Your task to perform on an android device: turn off translation in the chrome app Image 0: 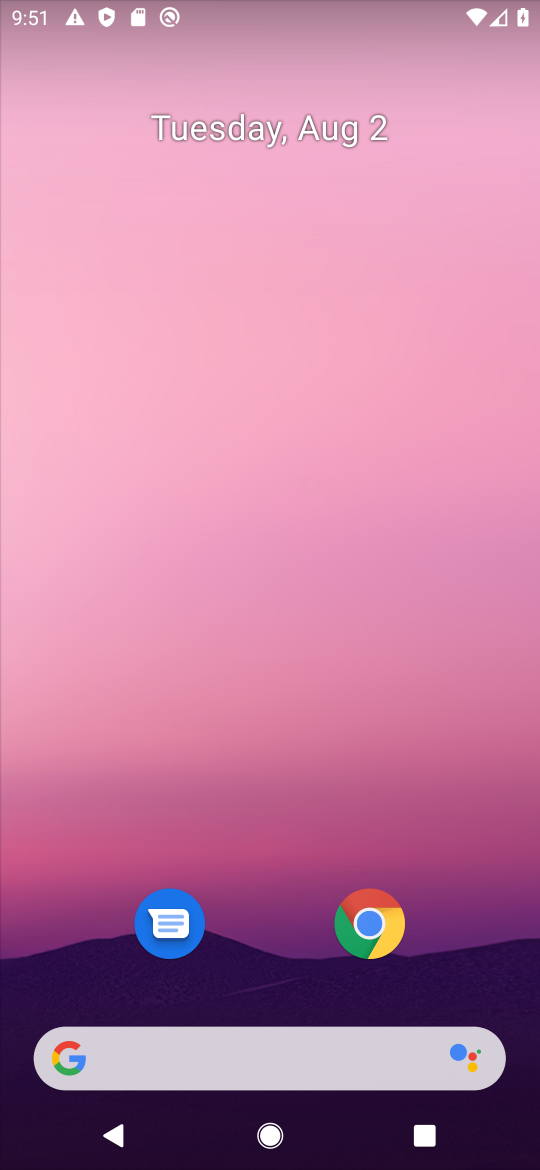
Step 0: press home button
Your task to perform on an android device: turn off translation in the chrome app Image 1: 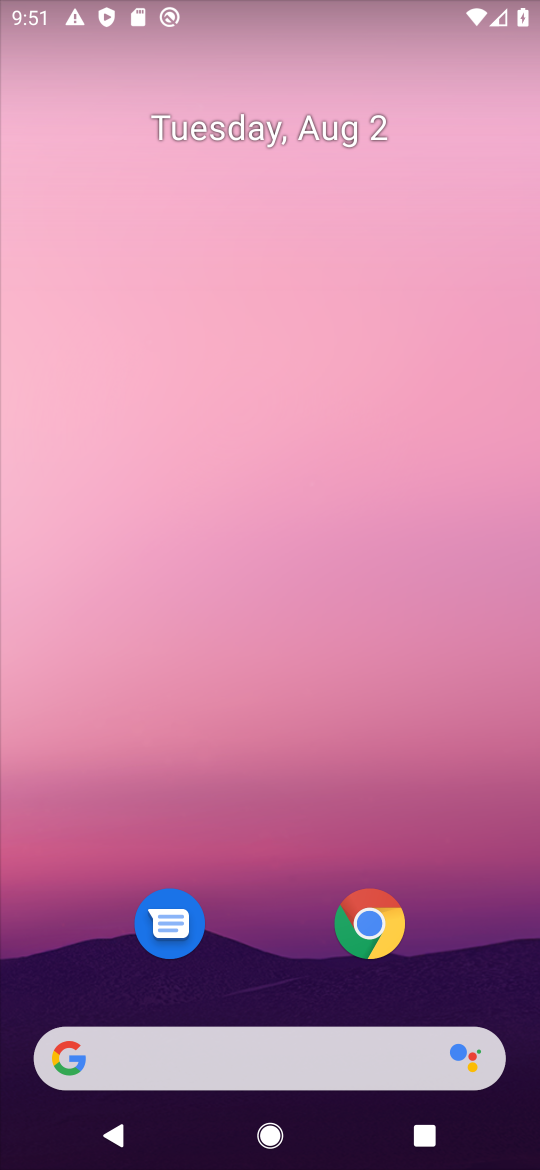
Step 1: click (365, 912)
Your task to perform on an android device: turn off translation in the chrome app Image 2: 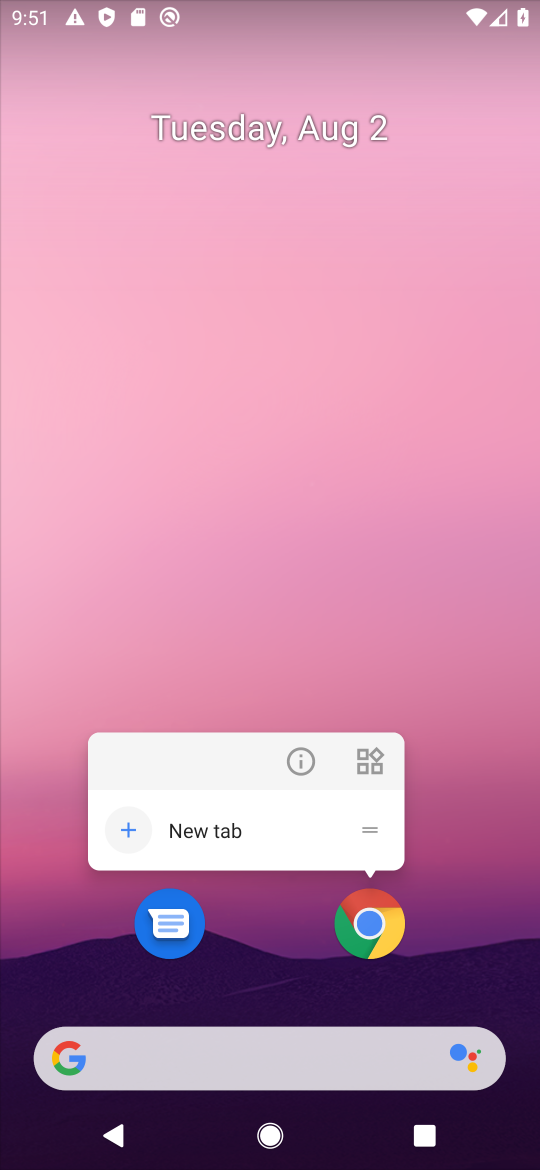
Step 2: click (368, 919)
Your task to perform on an android device: turn off translation in the chrome app Image 3: 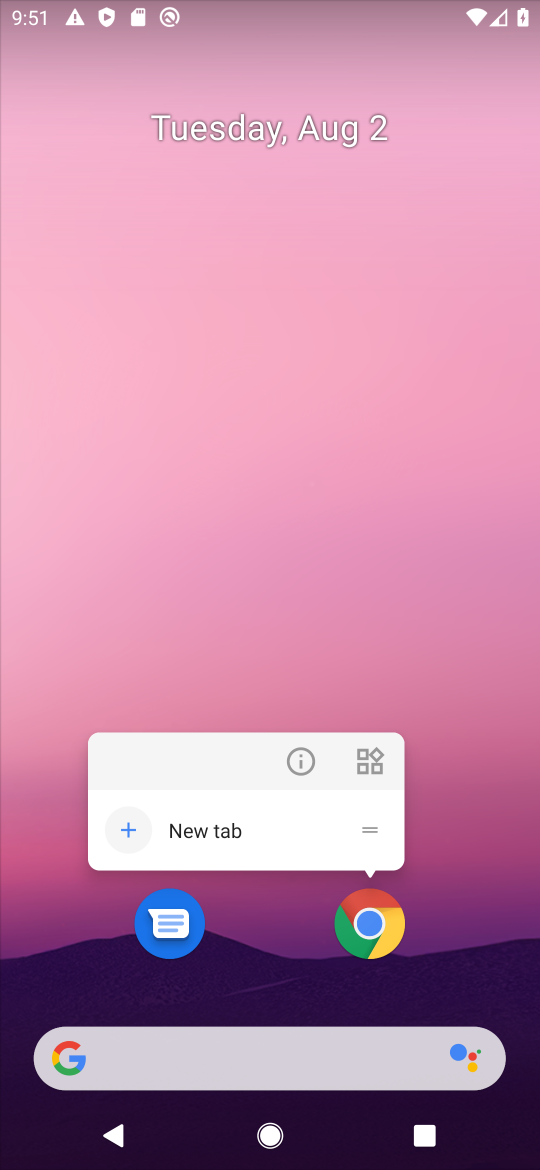
Step 3: click (362, 944)
Your task to perform on an android device: turn off translation in the chrome app Image 4: 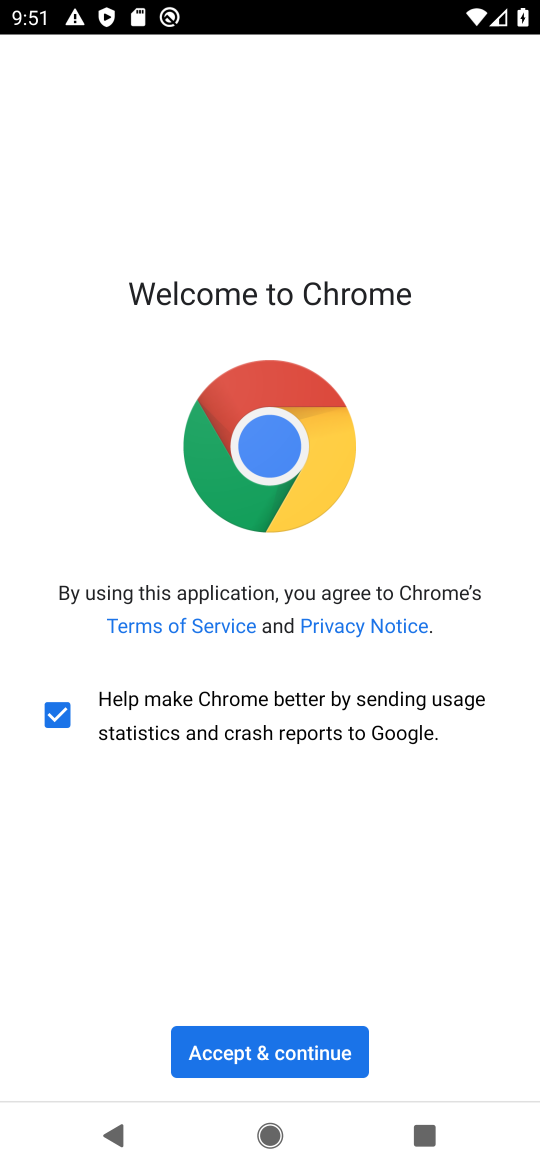
Step 4: click (307, 1058)
Your task to perform on an android device: turn off translation in the chrome app Image 5: 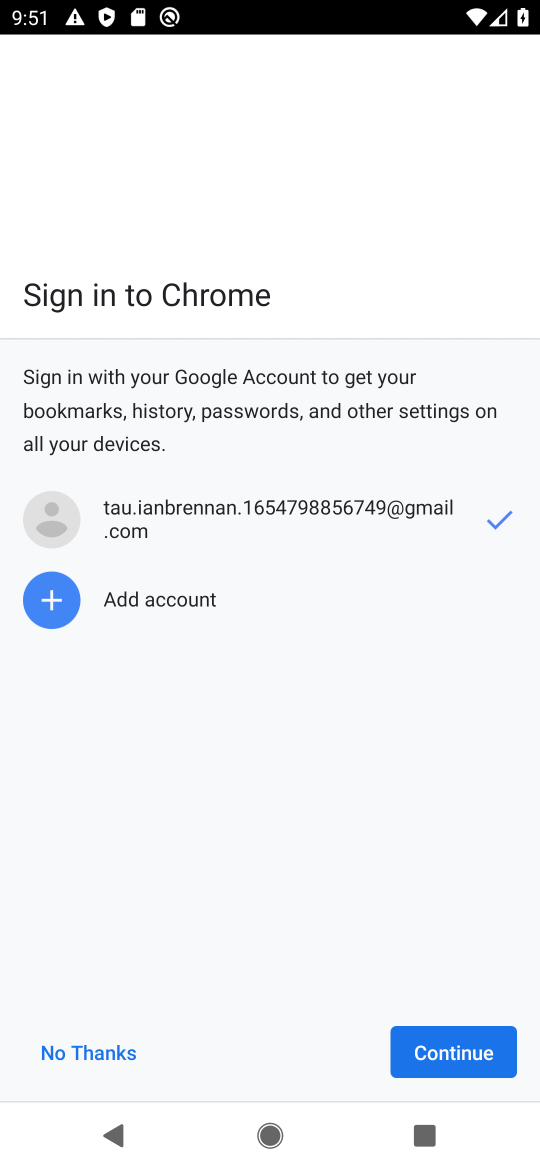
Step 5: click (445, 1059)
Your task to perform on an android device: turn off translation in the chrome app Image 6: 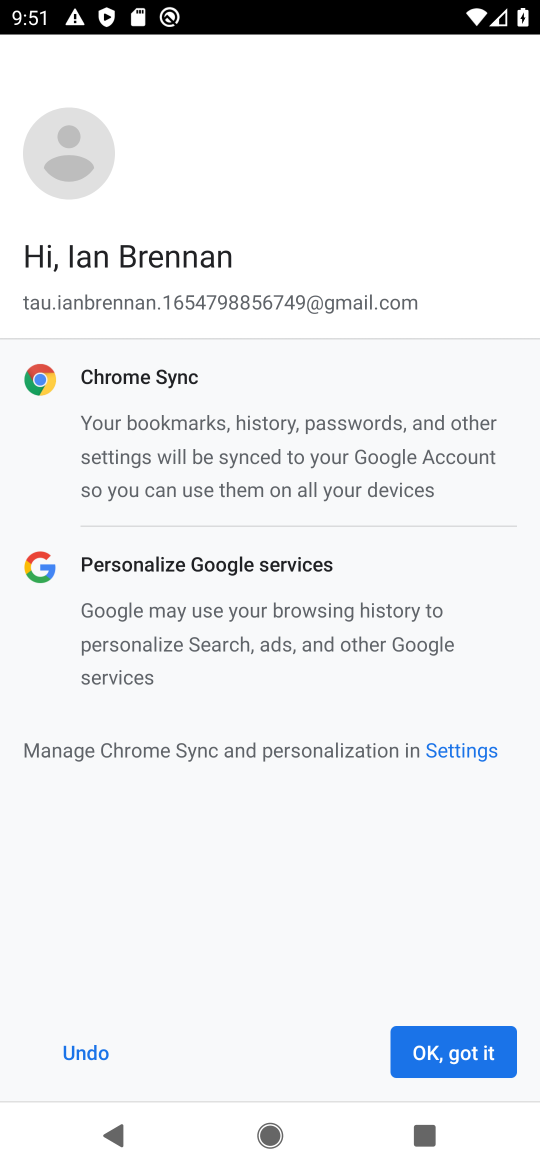
Step 6: click (459, 1056)
Your task to perform on an android device: turn off translation in the chrome app Image 7: 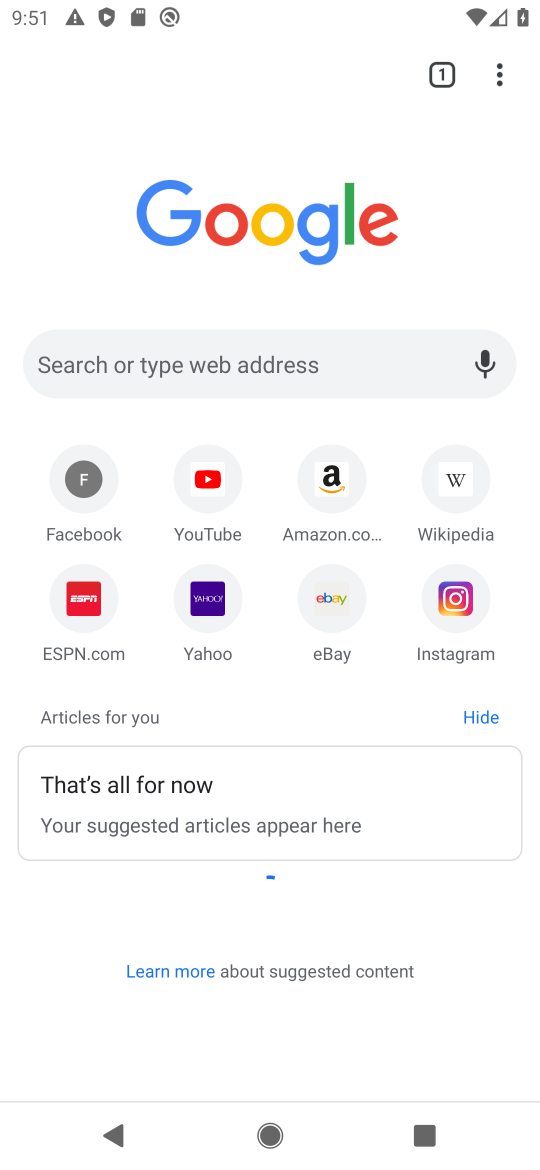
Step 7: click (499, 74)
Your task to perform on an android device: turn off translation in the chrome app Image 8: 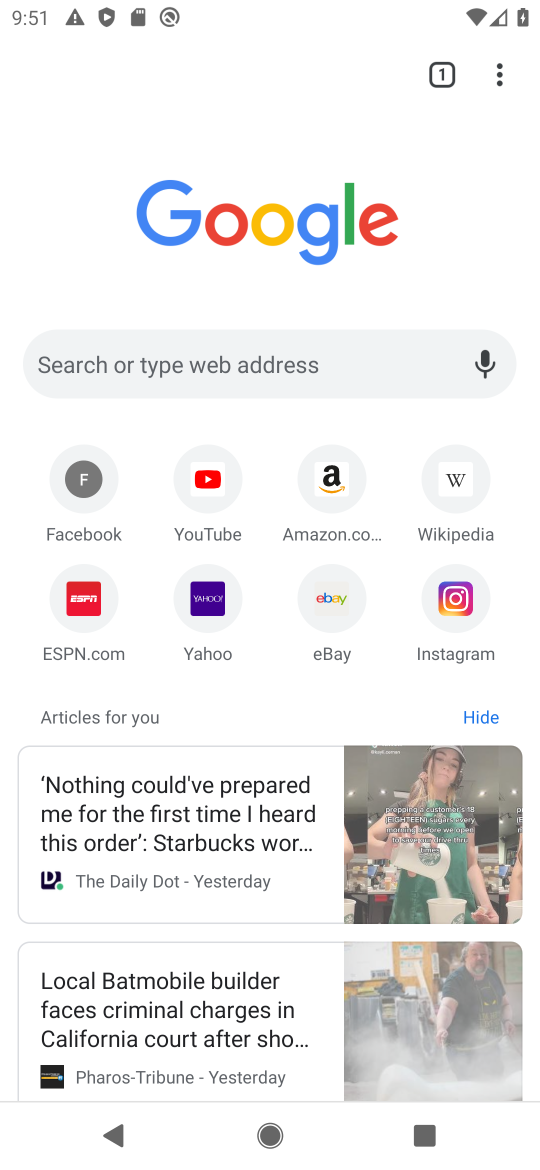
Step 8: drag from (501, 66) to (212, 632)
Your task to perform on an android device: turn off translation in the chrome app Image 9: 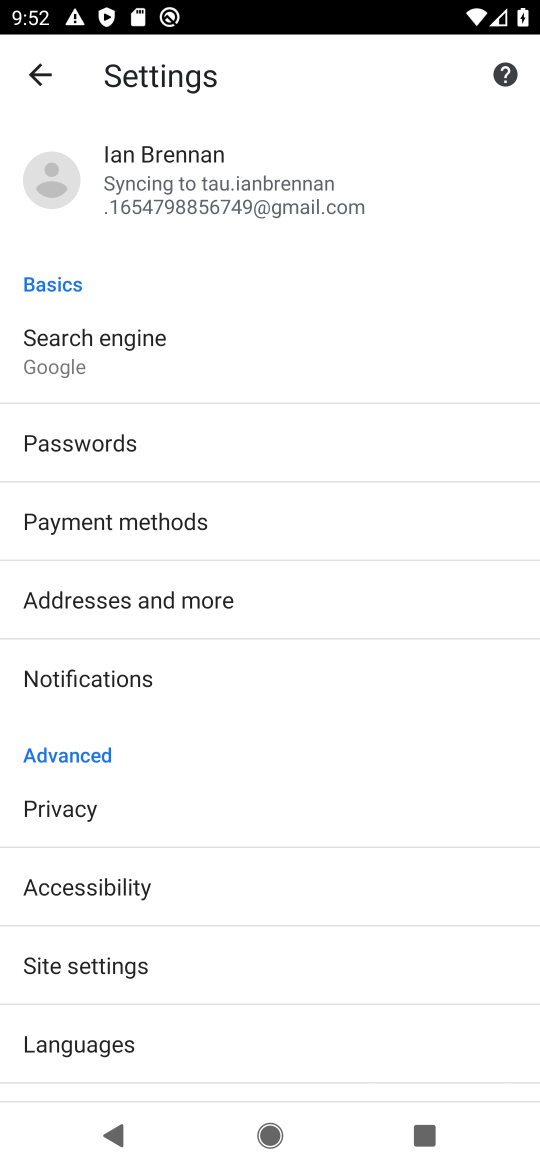
Step 9: click (89, 1039)
Your task to perform on an android device: turn off translation in the chrome app Image 10: 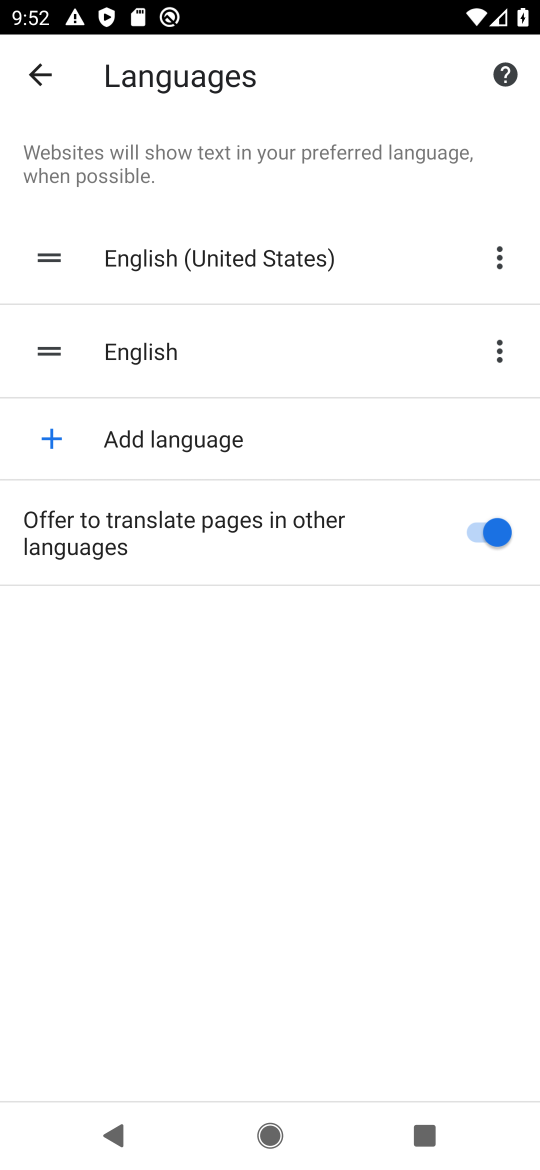
Step 10: click (510, 539)
Your task to perform on an android device: turn off translation in the chrome app Image 11: 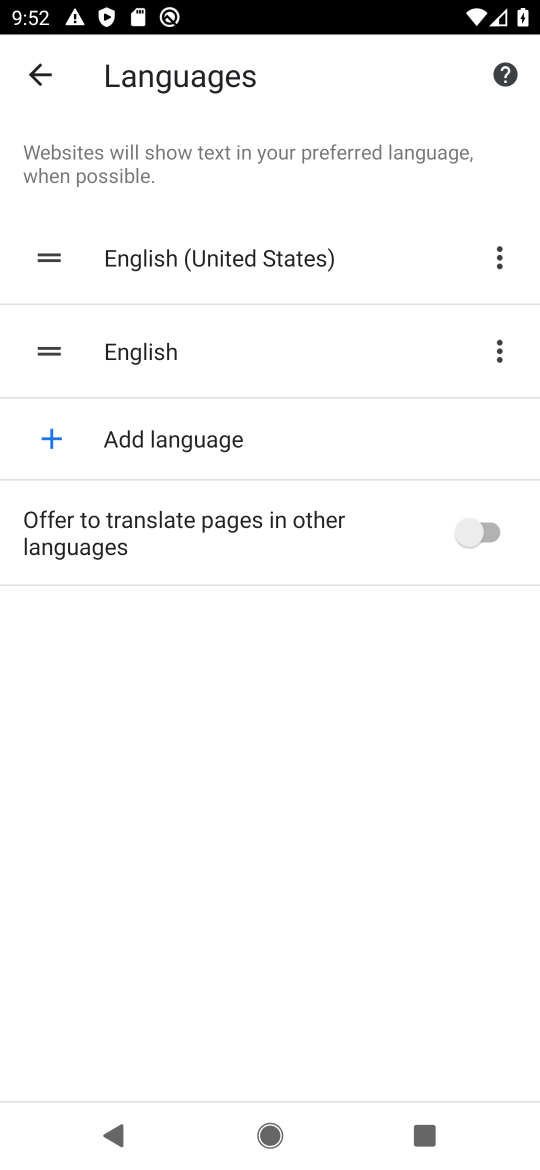
Step 11: task complete